Your task to perform on an android device: turn off notifications in google photos Image 0: 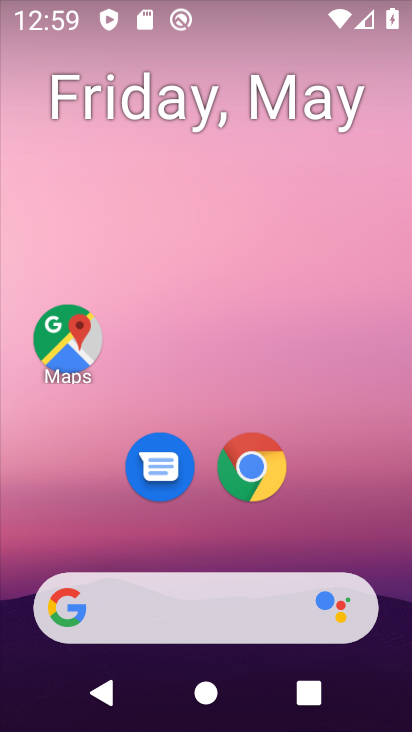
Step 0: drag from (203, 654) to (183, 311)
Your task to perform on an android device: turn off notifications in google photos Image 1: 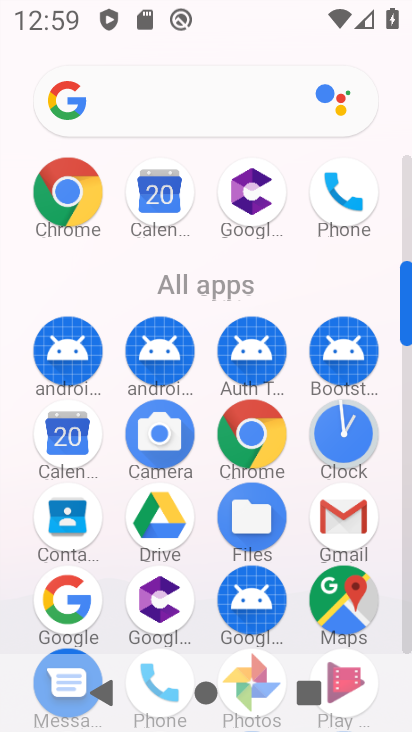
Step 1: drag from (208, 556) to (206, 450)
Your task to perform on an android device: turn off notifications in google photos Image 2: 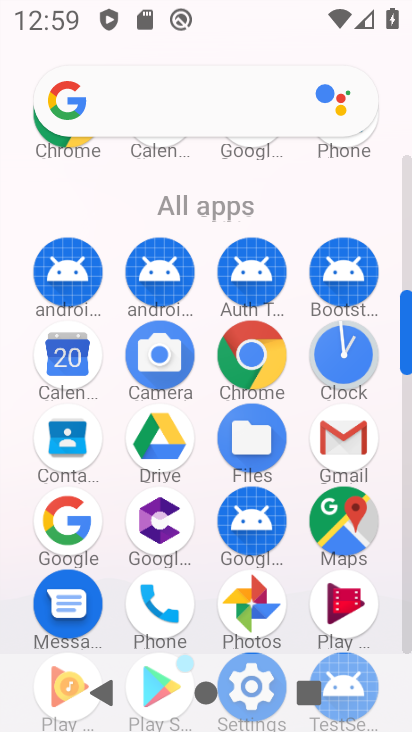
Step 2: click (252, 586)
Your task to perform on an android device: turn off notifications in google photos Image 3: 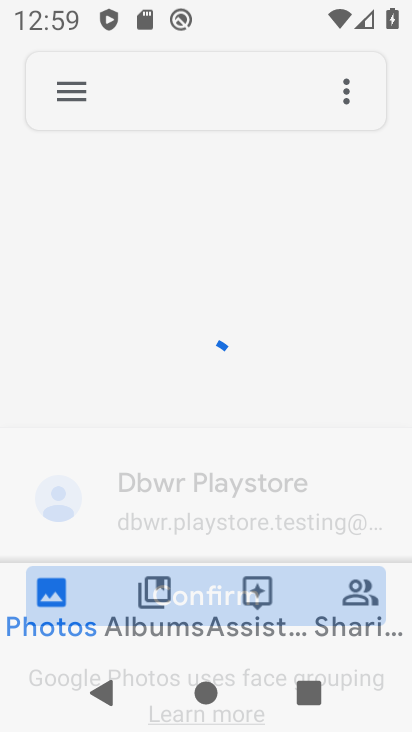
Step 3: click (57, 97)
Your task to perform on an android device: turn off notifications in google photos Image 4: 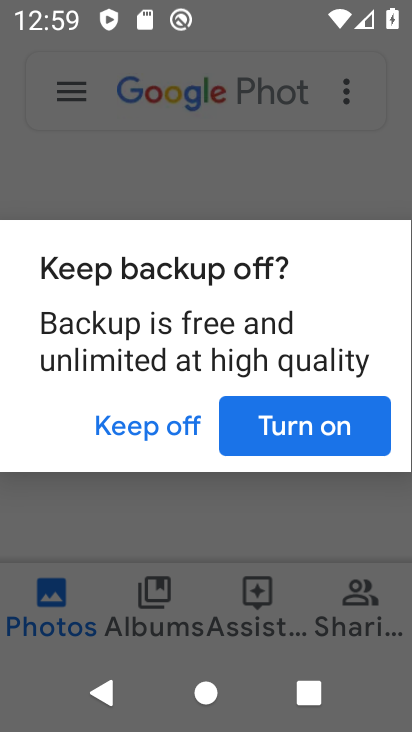
Step 4: click (264, 413)
Your task to perform on an android device: turn off notifications in google photos Image 5: 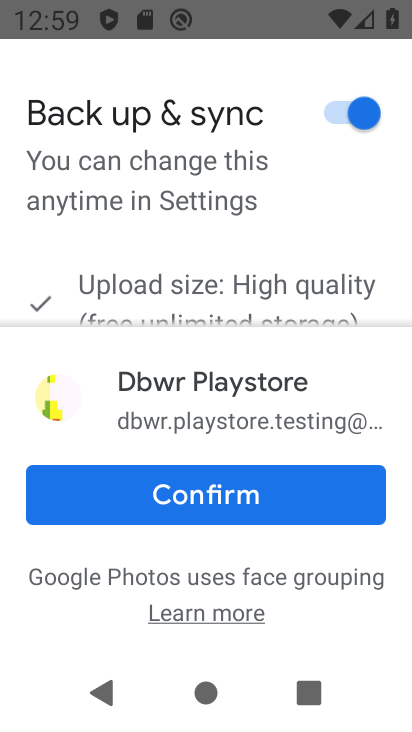
Step 5: click (52, 113)
Your task to perform on an android device: turn off notifications in google photos Image 6: 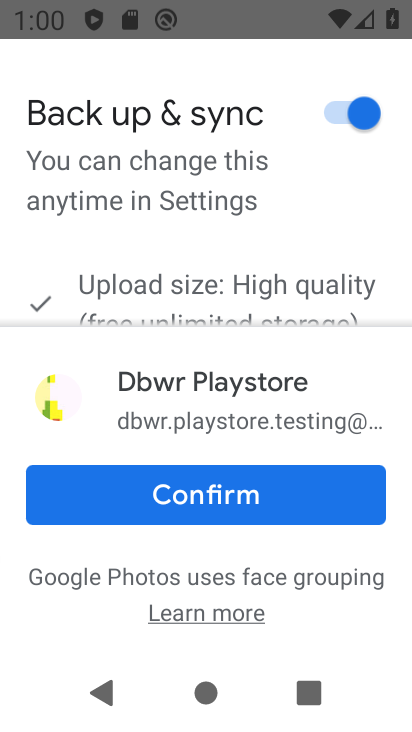
Step 6: click (171, 480)
Your task to perform on an android device: turn off notifications in google photos Image 7: 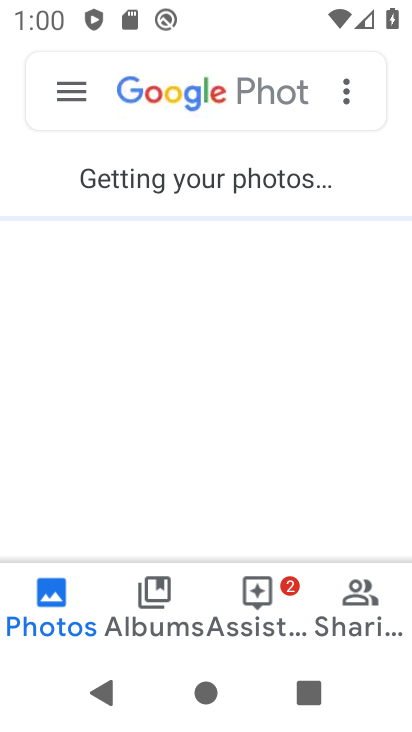
Step 7: click (69, 107)
Your task to perform on an android device: turn off notifications in google photos Image 8: 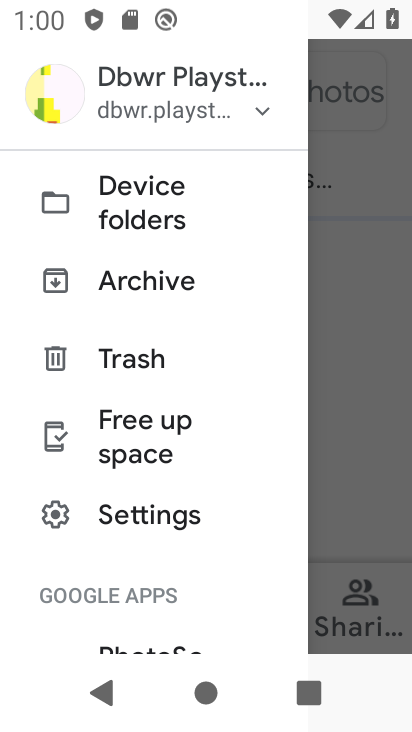
Step 8: click (128, 524)
Your task to perform on an android device: turn off notifications in google photos Image 9: 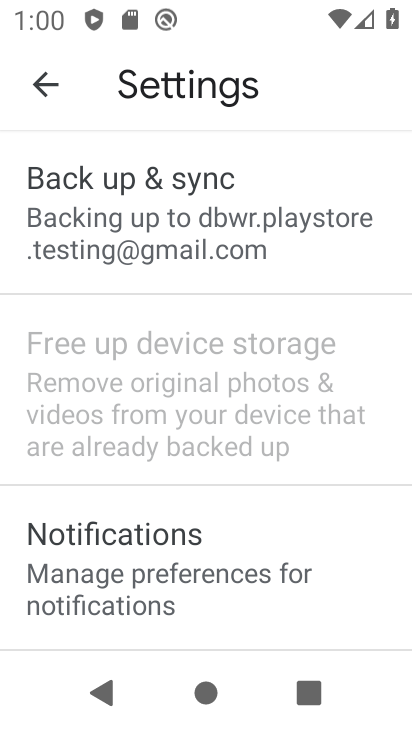
Step 9: click (135, 559)
Your task to perform on an android device: turn off notifications in google photos Image 10: 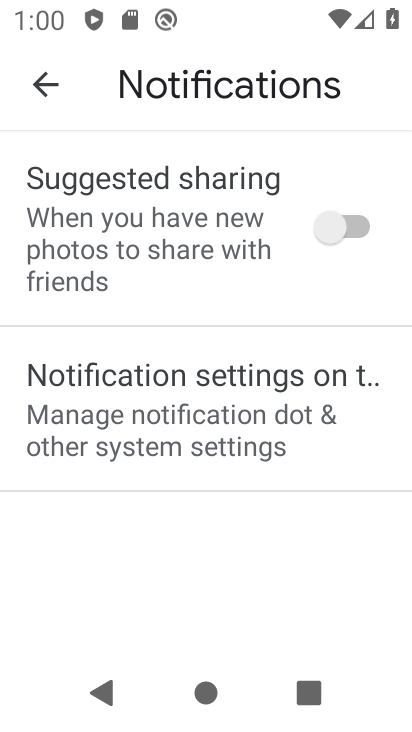
Step 10: click (173, 445)
Your task to perform on an android device: turn off notifications in google photos Image 11: 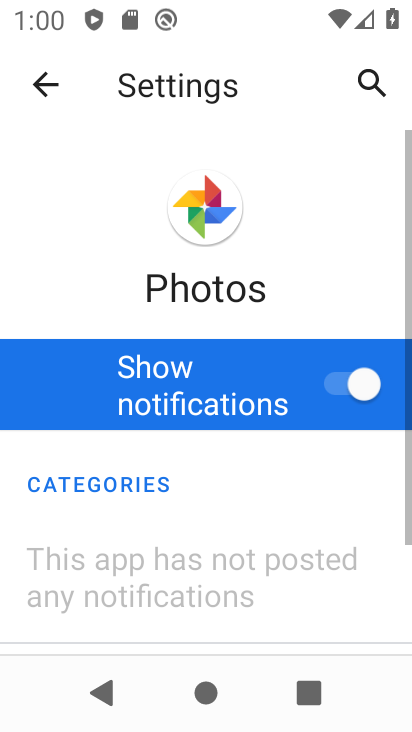
Step 11: click (332, 384)
Your task to perform on an android device: turn off notifications in google photos Image 12: 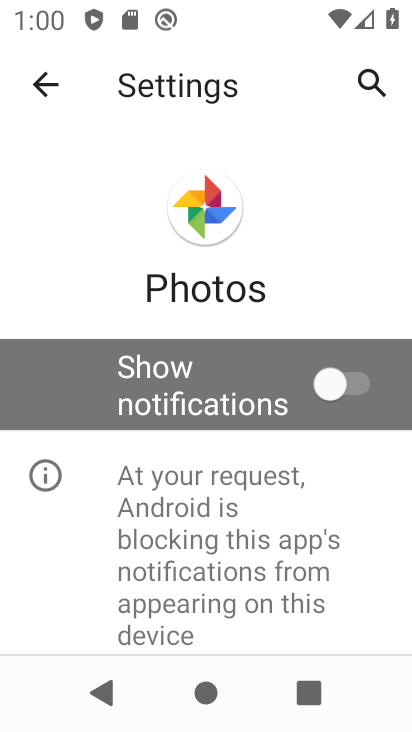
Step 12: task complete